Your task to perform on an android device: What's the weather going to be this weekend? Image 0: 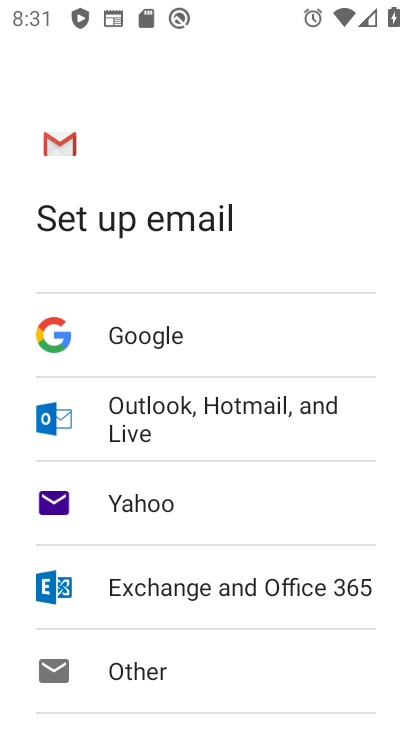
Step 0: press home button
Your task to perform on an android device: What's the weather going to be this weekend? Image 1: 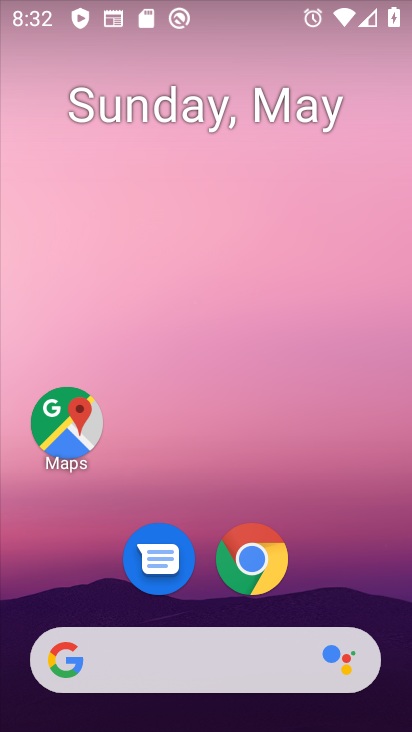
Step 1: click (80, 664)
Your task to perform on an android device: What's the weather going to be this weekend? Image 2: 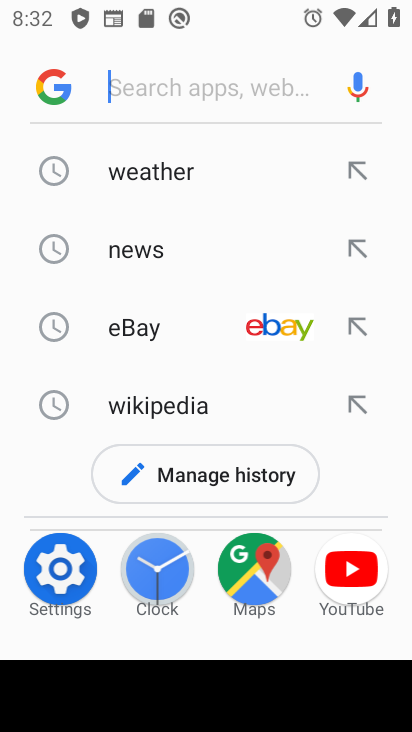
Step 2: click (183, 174)
Your task to perform on an android device: What's the weather going to be this weekend? Image 3: 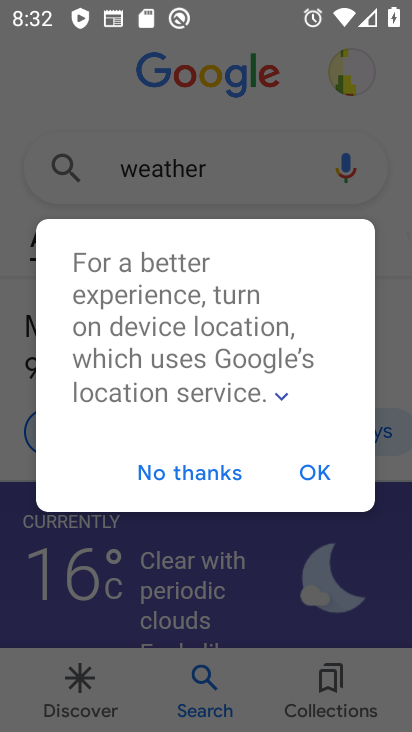
Step 3: click (154, 473)
Your task to perform on an android device: What's the weather going to be this weekend? Image 4: 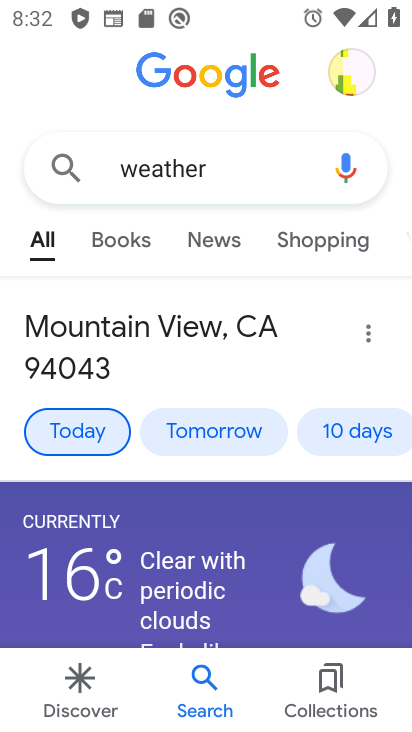
Step 4: click (324, 428)
Your task to perform on an android device: What's the weather going to be this weekend? Image 5: 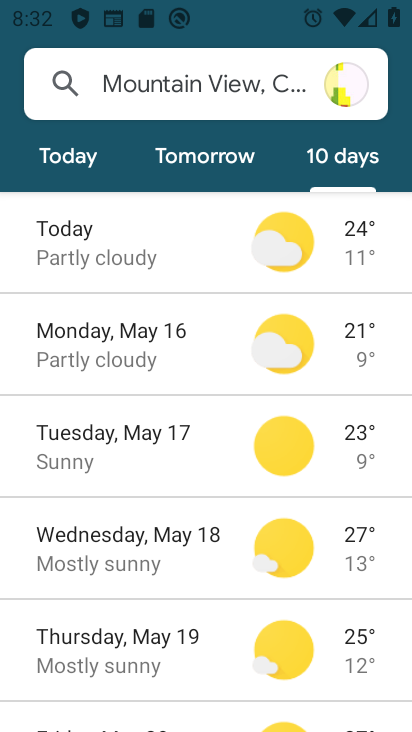
Step 5: task complete